Your task to perform on an android device: set an alarm Image 0: 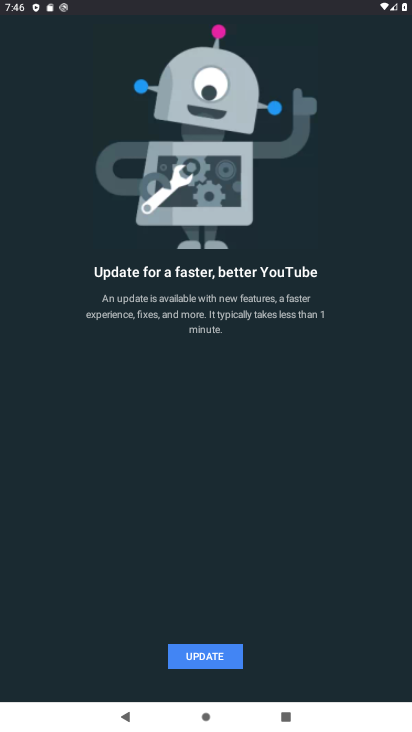
Step 0: press home button
Your task to perform on an android device: set an alarm Image 1: 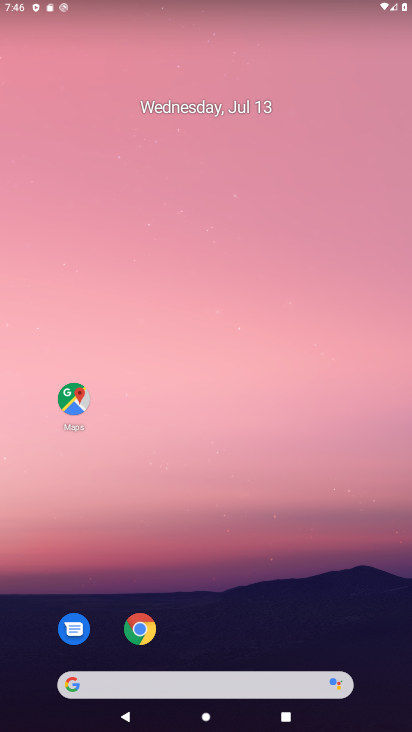
Step 1: drag from (290, 633) to (388, 0)
Your task to perform on an android device: set an alarm Image 2: 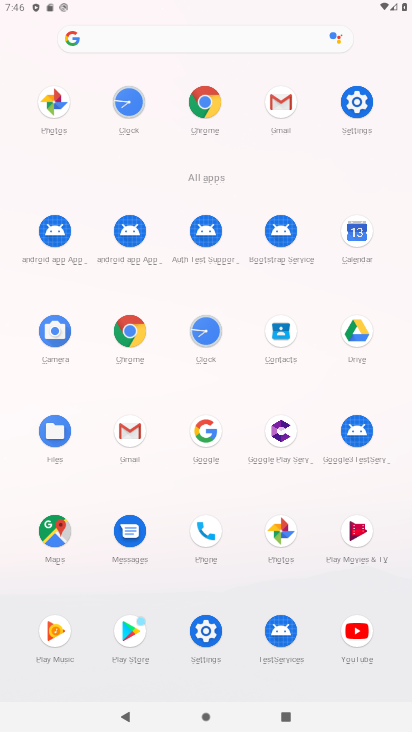
Step 2: click (214, 338)
Your task to perform on an android device: set an alarm Image 3: 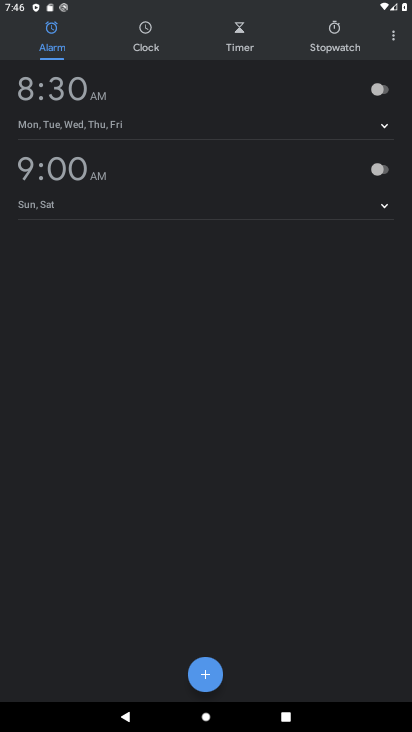
Step 3: click (239, 50)
Your task to perform on an android device: set an alarm Image 4: 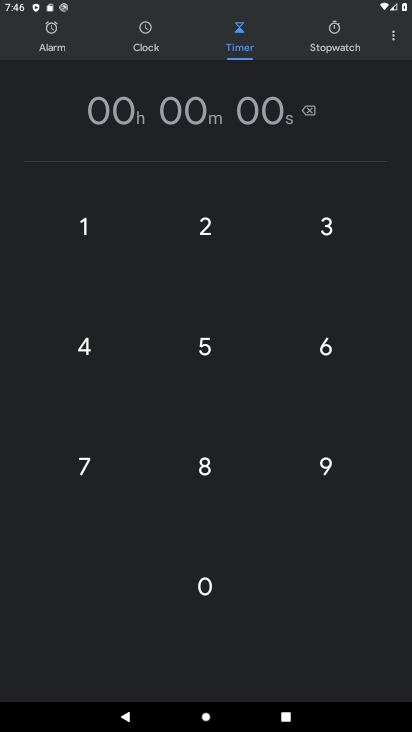
Step 4: click (59, 43)
Your task to perform on an android device: set an alarm Image 5: 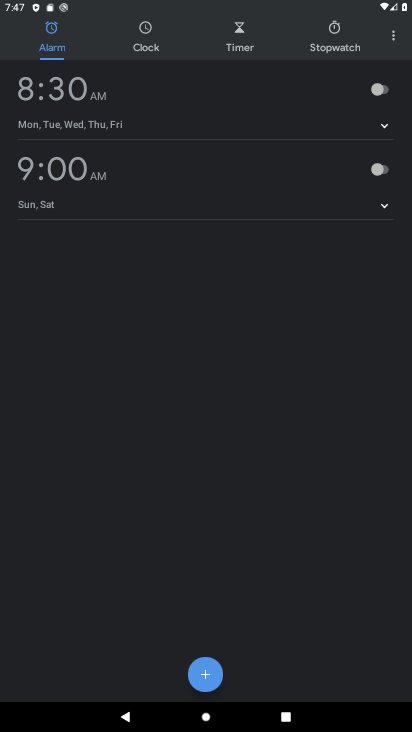
Step 5: click (391, 92)
Your task to perform on an android device: set an alarm Image 6: 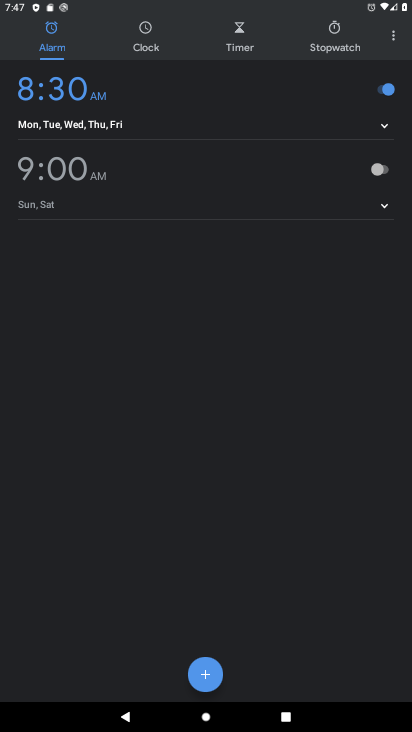
Step 6: task complete